Your task to perform on an android device: remove spam from my inbox in the gmail app Image 0: 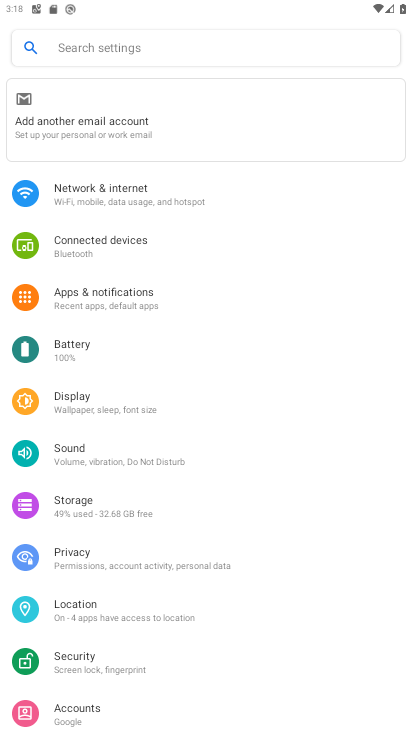
Step 0: press home button
Your task to perform on an android device: remove spam from my inbox in the gmail app Image 1: 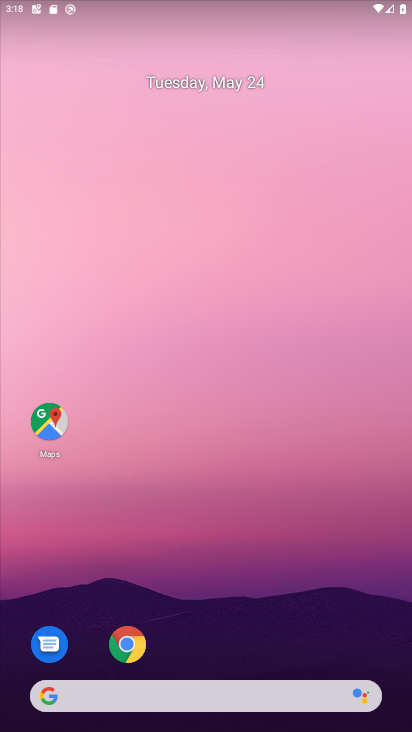
Step 1: drag from (212, 663) to (172, 181)
Your task to perform on an android device: remove spam from my inbox in the gmail app Image 2: 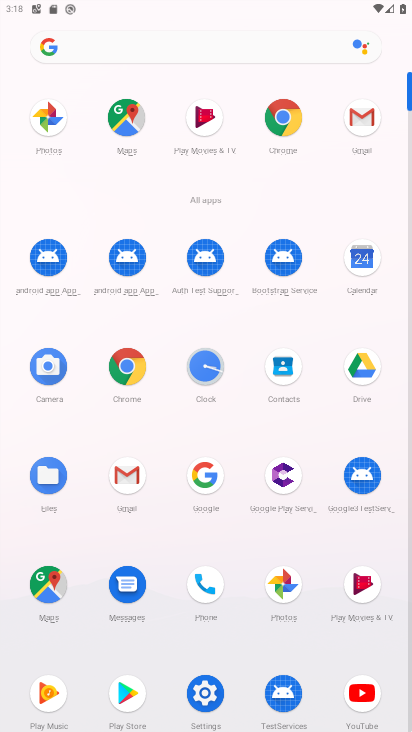
Step 2: click (379, 136)
Your task to perform on an android device: remove spam from my inbox in the gmail app Image 3: 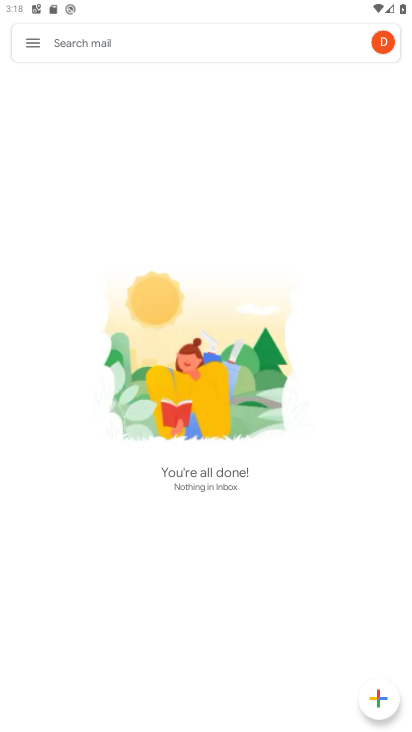
Step 3: click (36, 45)
Your task to perform on an android device: remove spam from my inbox in the gmail app Image 4: 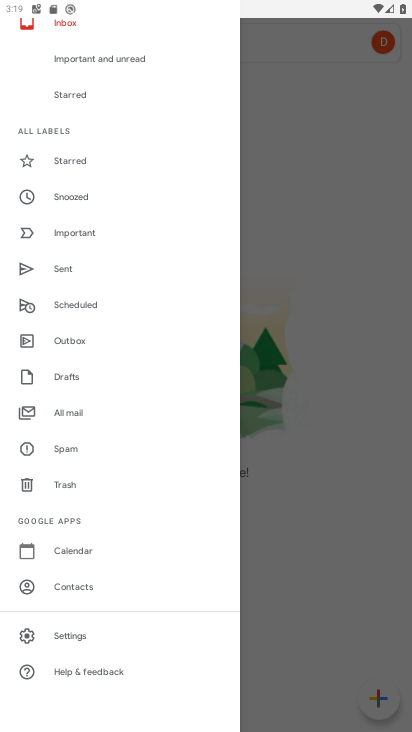
Step 4: click (74, 420)
Your task to perform on an android device: remove spam from my inbox in the gmail app Image 5: 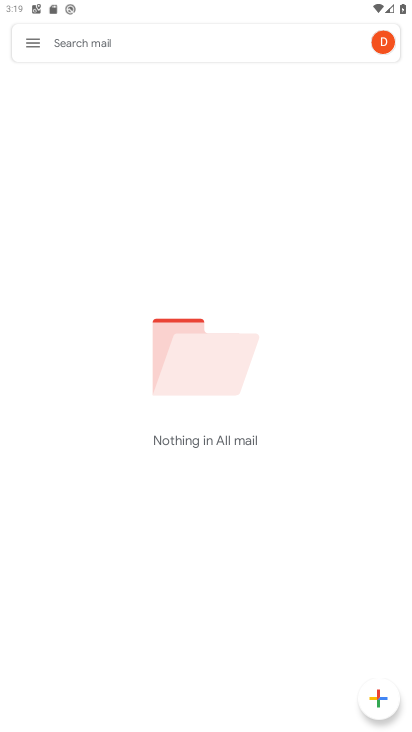
Step 5: task complete